Your task to perform on an android device: Do I have any events this weekend? Image 0: 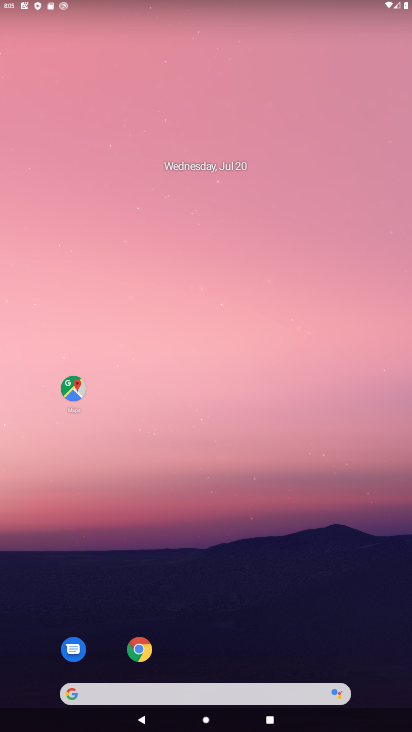
Step 0: drag from (260, 672) to (264, 228)
Your task to perform on an android device: Do I have any events this weekend? Image 1: 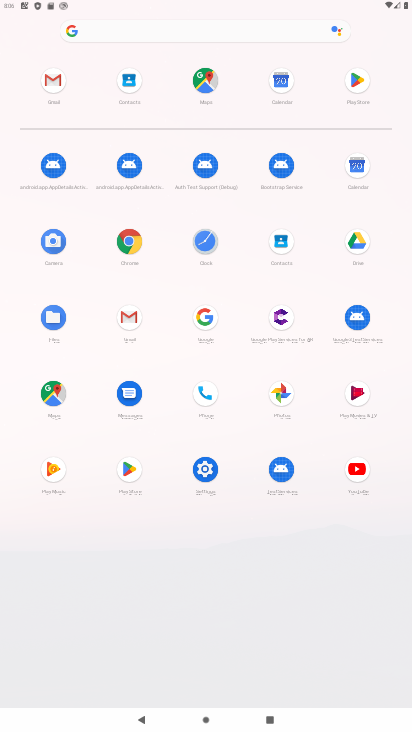
Step 1: click (291, 95)
Your task to perform on an android device: Do I have any events this weekend? Image 2: 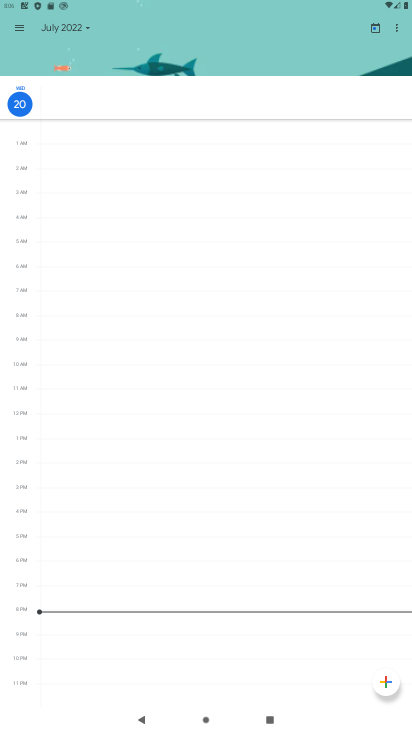
Step 2: task complete